Your task to perform on an android device: Search for pizza restaurants on Maps Image 0: 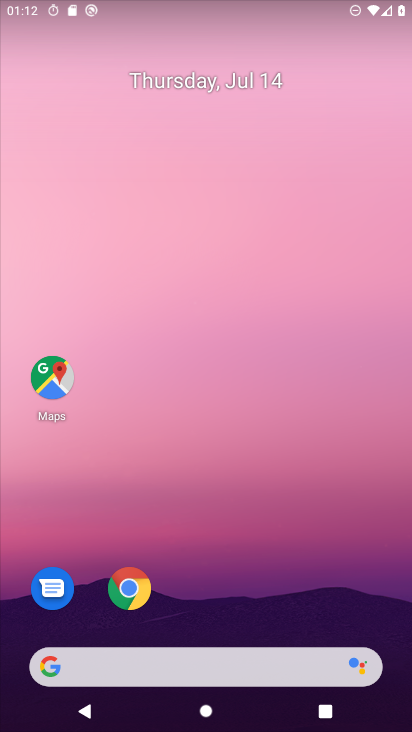
Step 0: click (56, 391)
Your task to perform on an android device: Search for pizza restaurants on Maps Image 1: 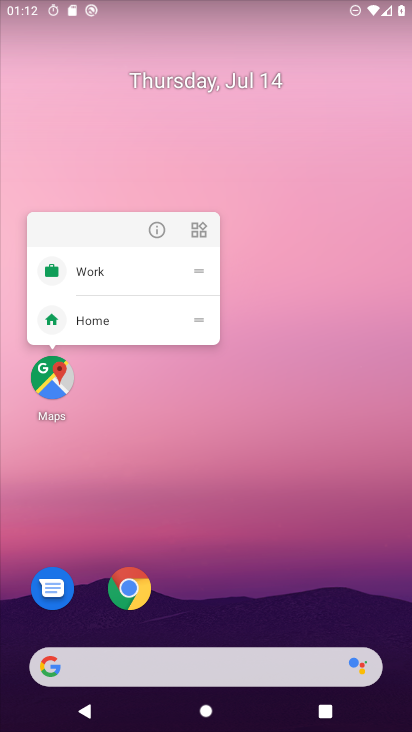
Step 1: click (56, 385)
Your task to perform on an android device: Search for pizza restaurants on Maps Image 2: 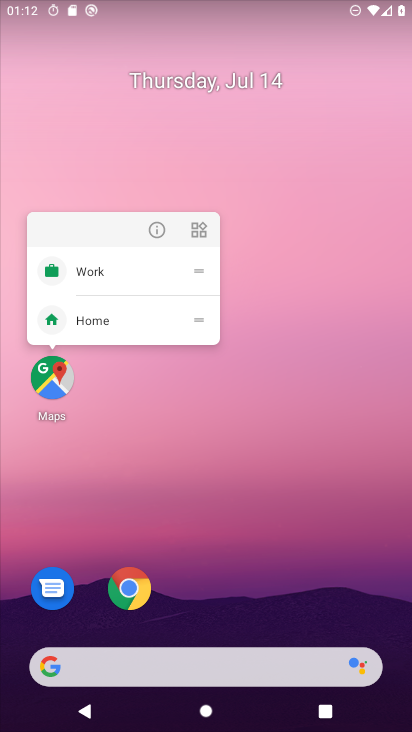
Step 2: click (50, 382)
Your task to perform on an android device: Search for pizza restaurants on Maps Image 3: 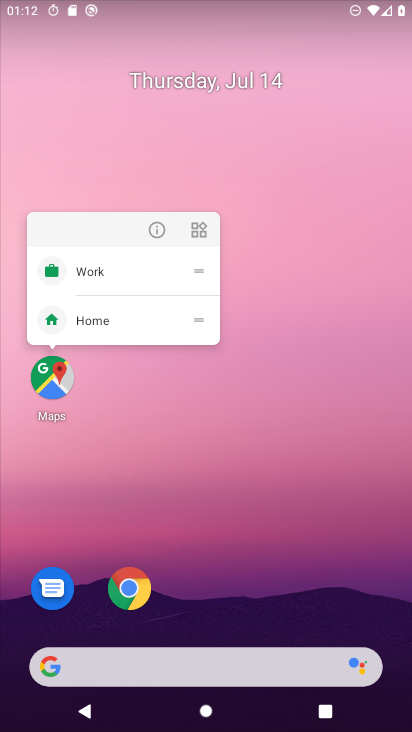
Step 3: click (50, 382)
Your task to perform on an android device: Search for pizza restaurants on Maps Image 4: 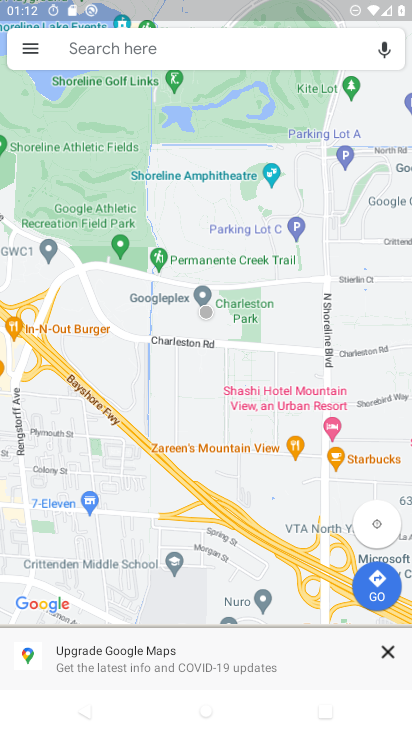
Step 4: click (144, 52)
Your task to perform on an android device: Search for pizza restaurants on Maps Image 5: 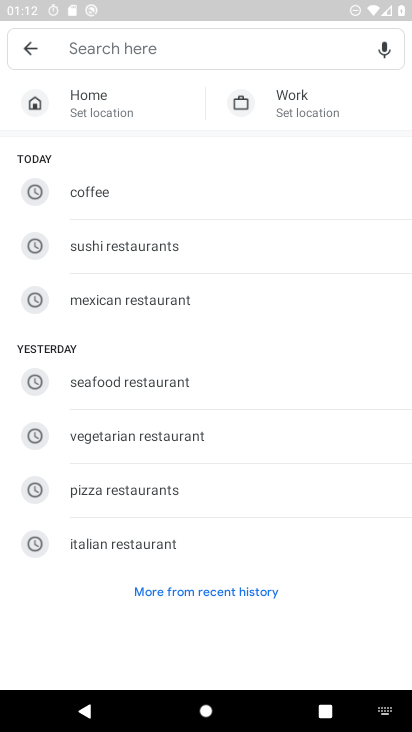
Step 5: click (167, 482)
Your task to perform on an android device: Search for pizza restaurants on Maps Image 6: 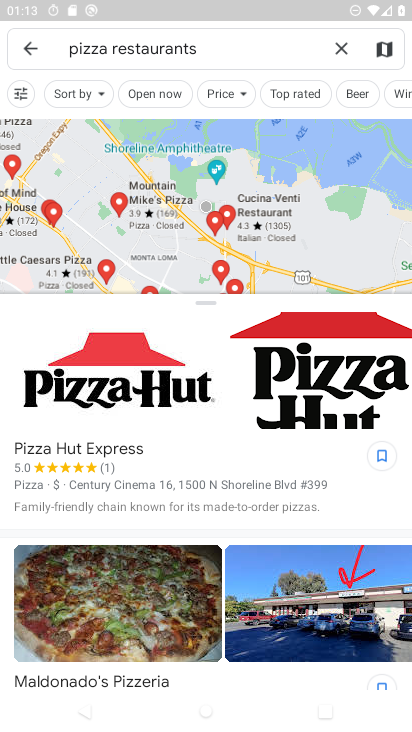
Step 6: task complete